Your task to perform on an android device: find snoozed emails in the gmail app Image 0: 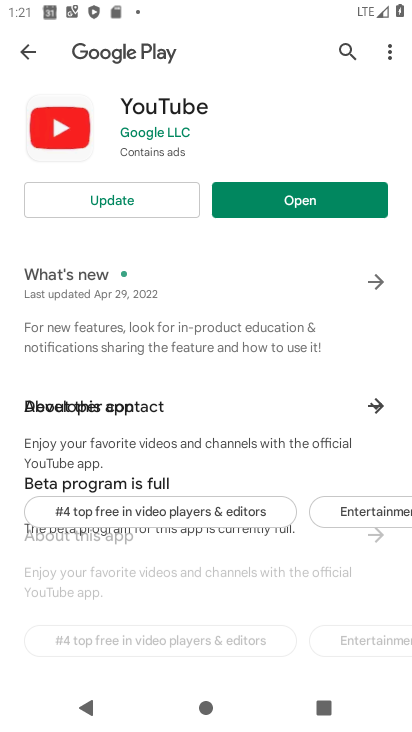
Step 0: press home button
Your task to perform on an android device: find snoozed emails in the gmail app Image 1: 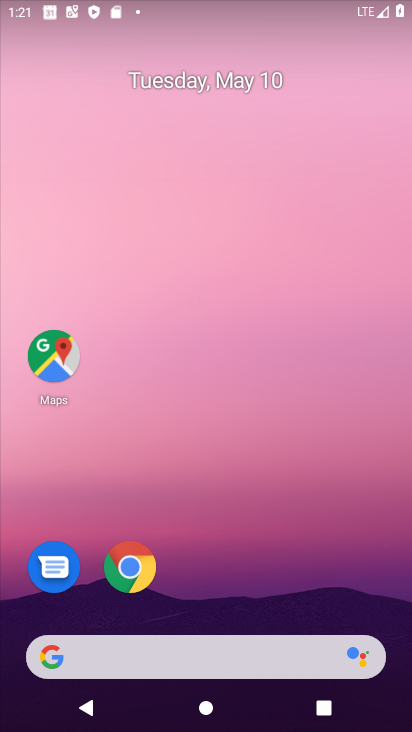
Step 1: drag from (387, 634) to (275, 41)
Your task to perform on an android device: find snoozed emails in the gmail app Image 2: 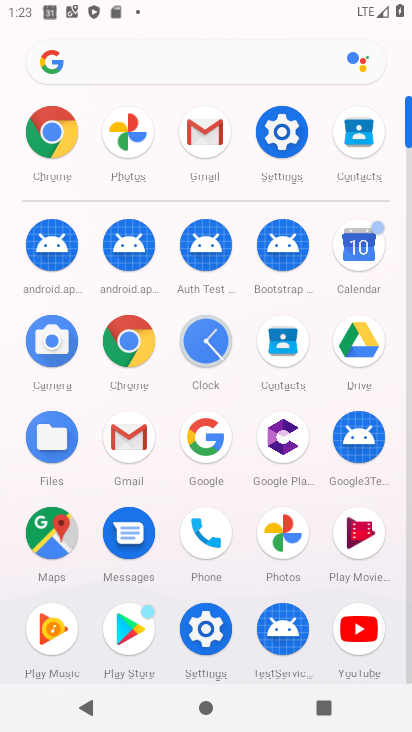
Step 2: click (136, 451)
Your task to perform on an android device: find snoozed emails in the gmail app Image 3: 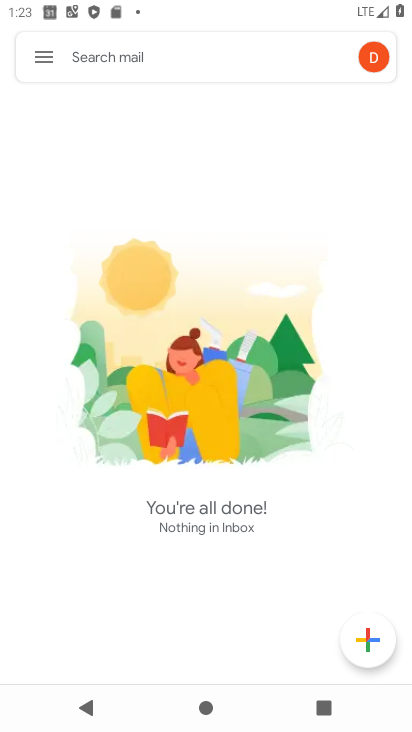
Step 3: click (52, 61)
Your task to perform on an android device: find snoozed emails in the gmail app Image 4: 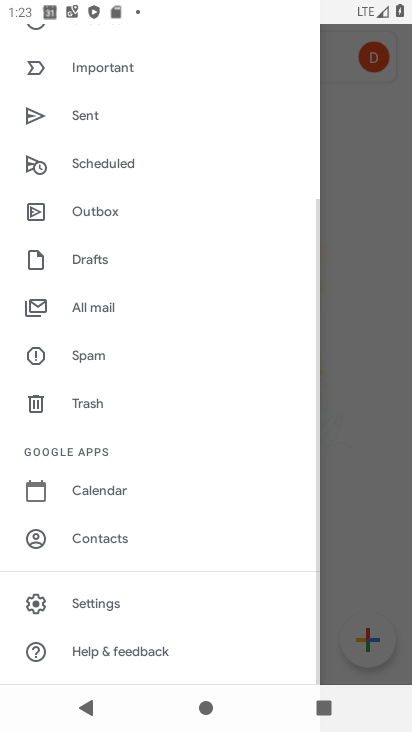
Step 4: drag from (129, 84) to (158, 570)
Your task to perform on an android device: find snoozed emails in the gmail app Image 5: 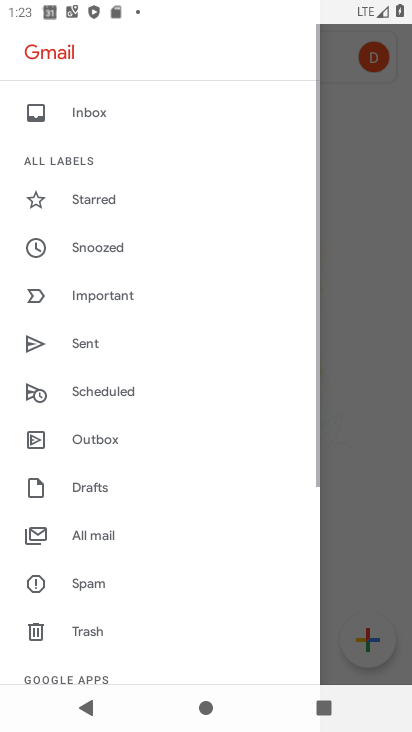
Step 5: click (129, 244)
Your task to perform on an android device: find snoozed emails in the gmail app Image 6: 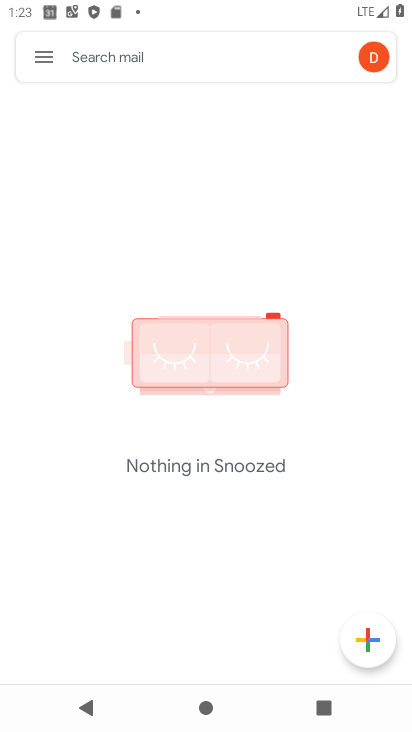
Step 6: task complete